Your task to perform on an android device: Go to calendar. Show me events next week Image 0: 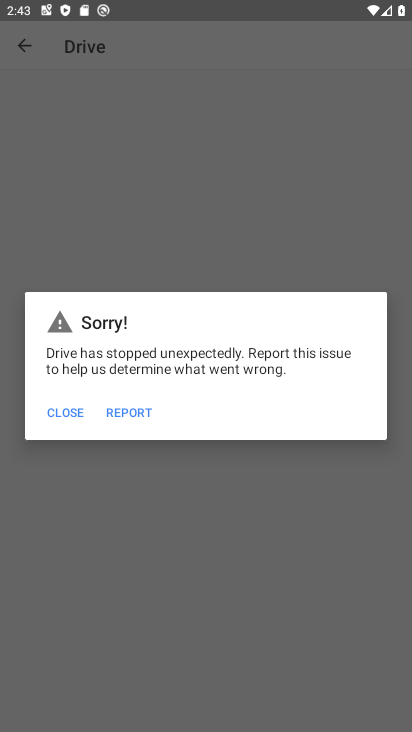
Step 0: press home button
Your task to perform on an android device: Go to calendar. Show me events next week Image 1: 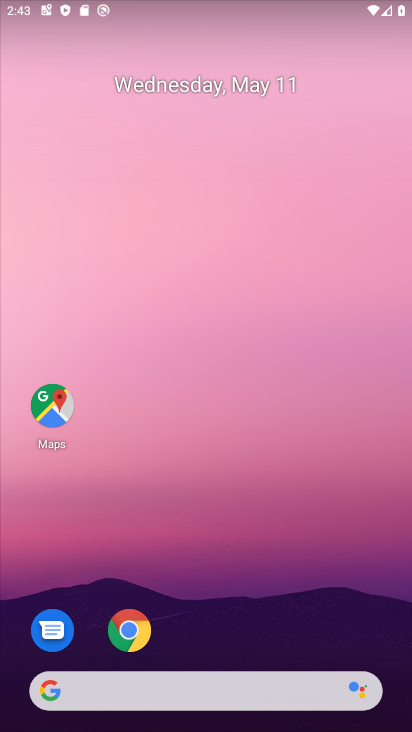
Step 1: drag from (320, 624) to (341, 47)
Your task to perform on an android device: Go to calendar. Show me events next week Image 2: 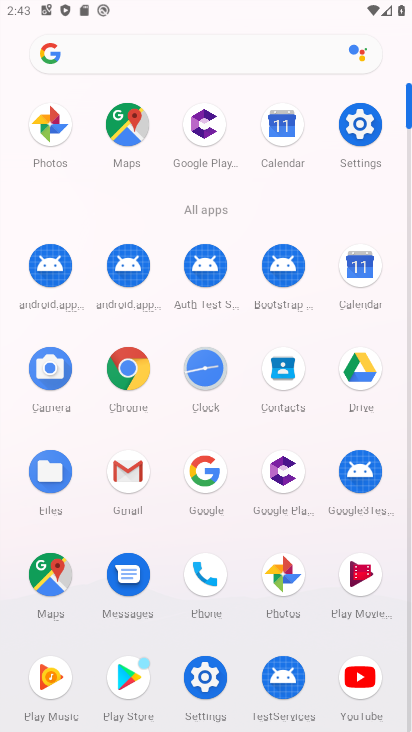
Step 2: click (289, 130)
Your task to perform on an android device: Go to calendar. Show me events next week Image 3: 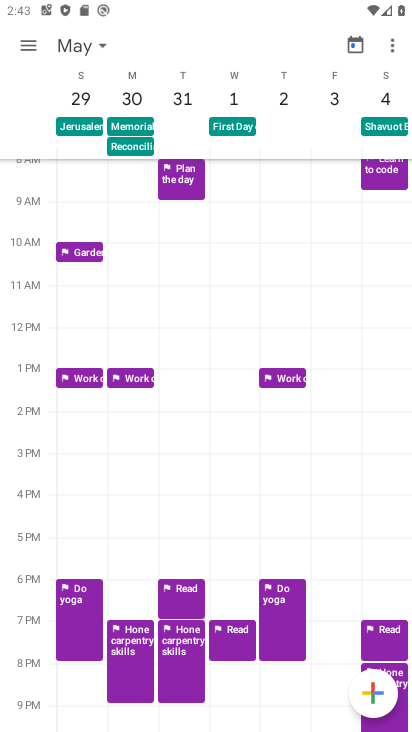
Step 3: click (107, 47)
Your task to perform on an android device: Go to calendar. Show me events next week Image 4: 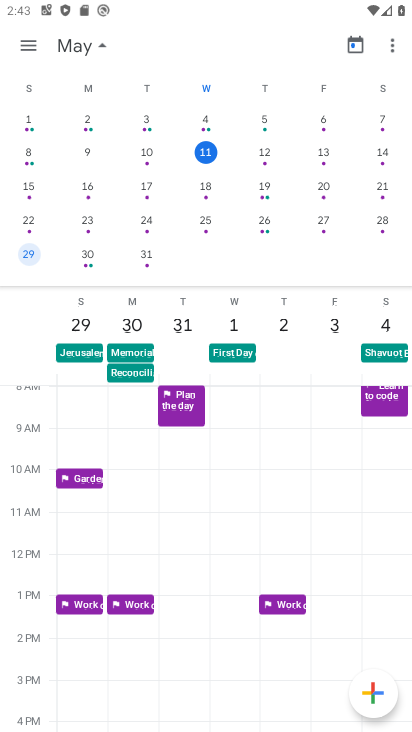
Step 4: click (219, 156)
Your task to perform on an android device: Go to calendar. Show me events next week Image 5: 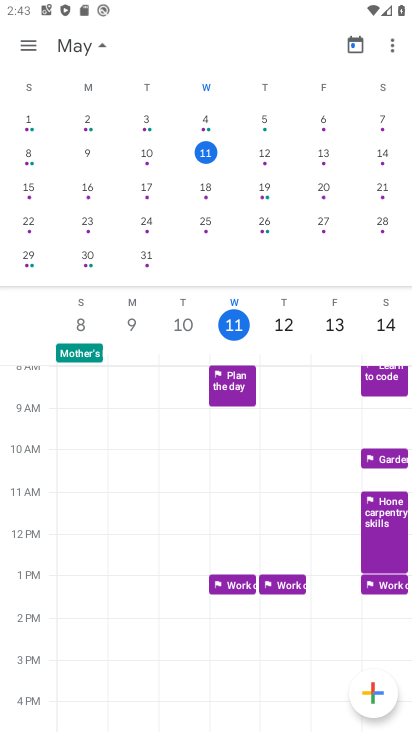
Step 5: drag from (289, 473) to (29, 499)
Your task to perform on an android device: Go to calendar. Show me events next week Image 6: 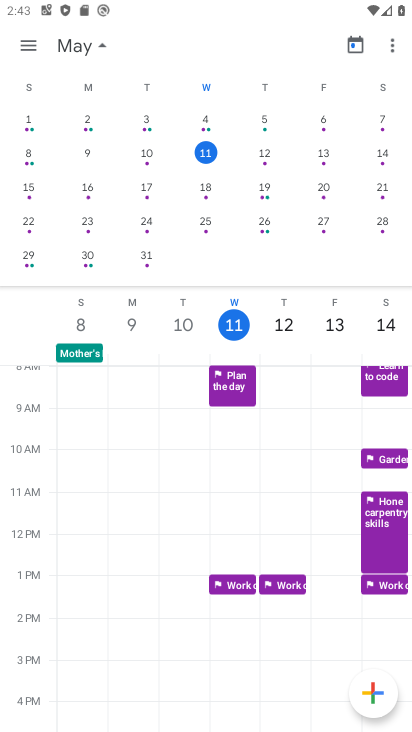
Step 6: drag from (215, 484) to (243, 0)
Your task to perform on an android device: Go to calendar. Show me events next week Image 7: 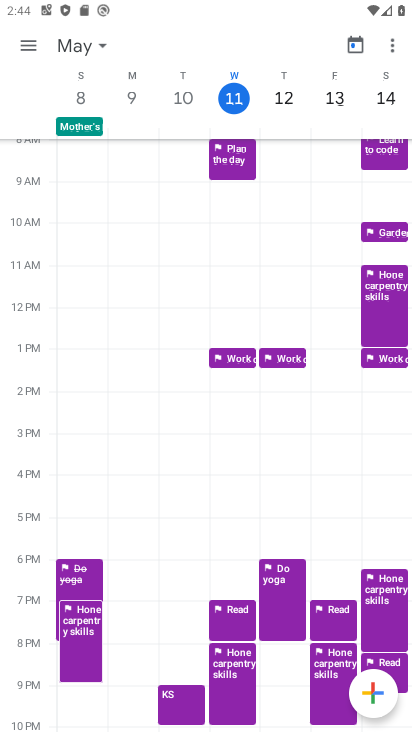
Step 7: drag from (268, 430) to (3, 89)
Your task to perform on an android device: Go to calendar. Show me events next week Image 8: 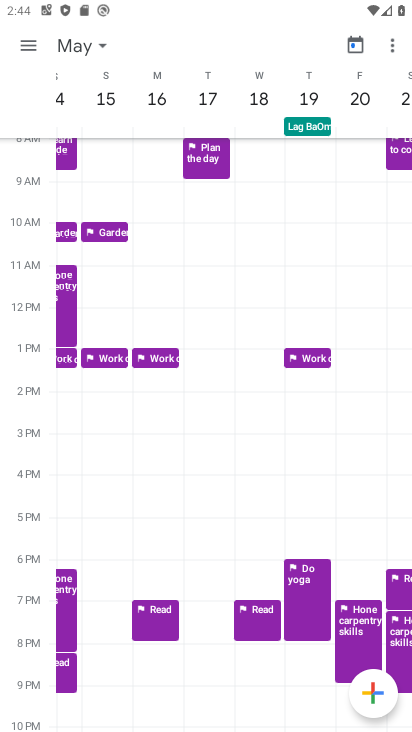
Step 8: click (35, 45)
Your task to perform on an android device: Go to calendar. Show me events next week Image 9: 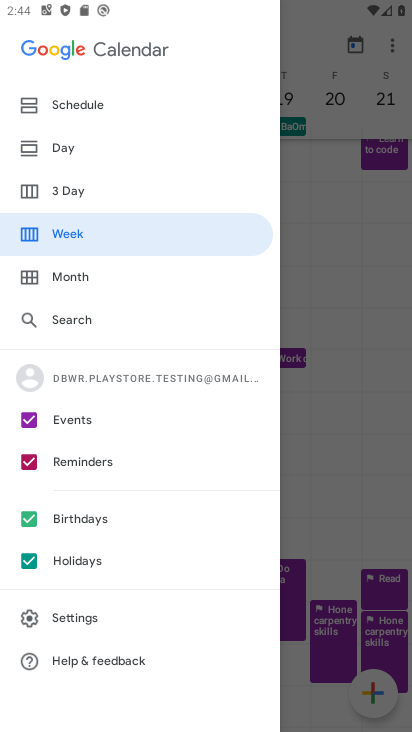
Step 9: click (33, 465)
Your task to perform on an android device: Go to calendar. Show me events next week Image 10: 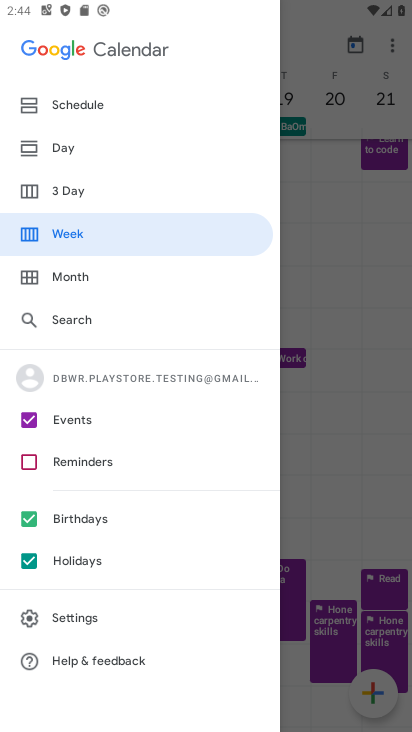
Step 10: click (23, 523)
Your task to perform on an android device: Go to calendar. Show me events next week Image 11: 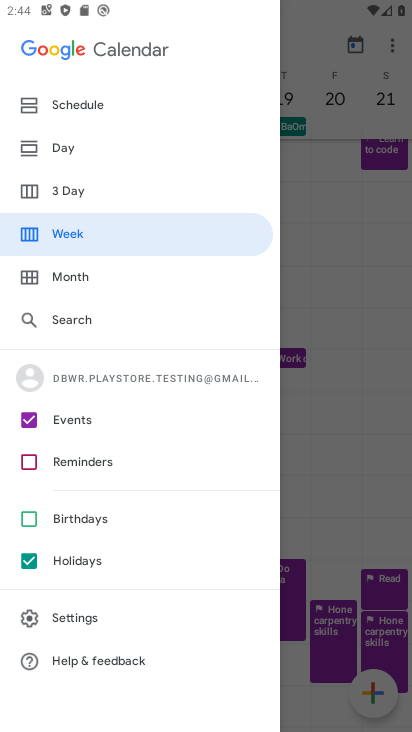
Step 11: click (30, 564)
Your task to perform on an android device: Go to calendar. Show me events next week Image 12: 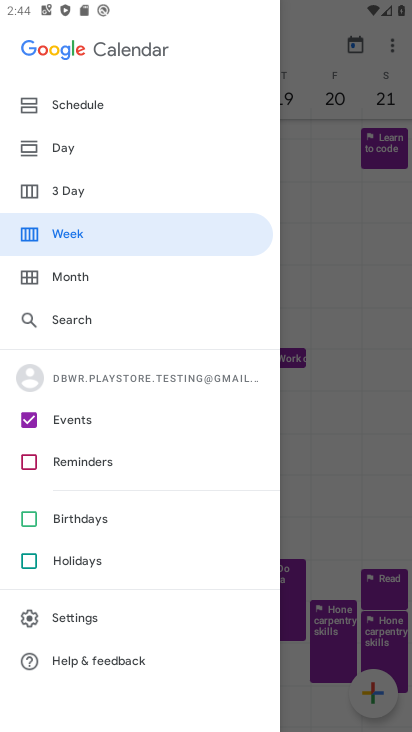
Step 12: click (30, 108)
Your task to perform on an android device: Go to calendar. Show me events next week Image 13: 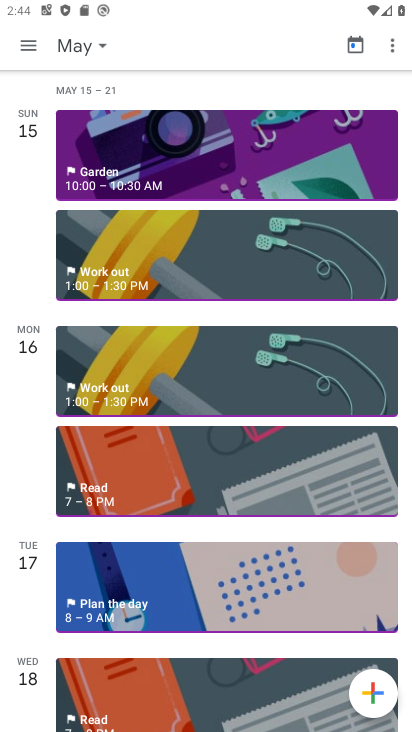
Step 13: click (28, 46)
Your task to perform on an android device: Go to calendar. Show me events next week Image 14: 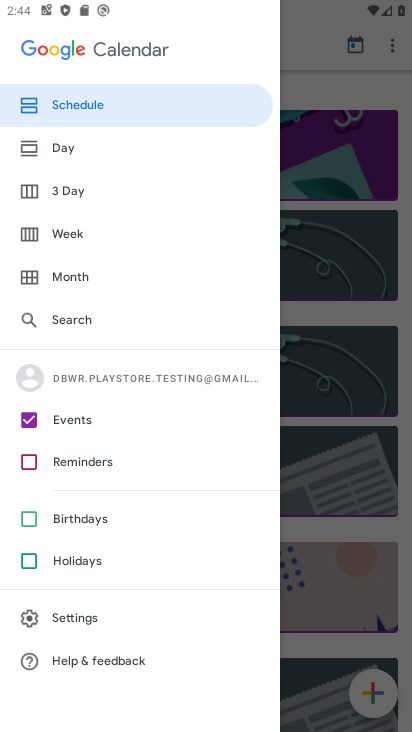
Step 14: click (57, 235)
Your task to perform on an android device: Go to calendar. Show me events next week Image 15: 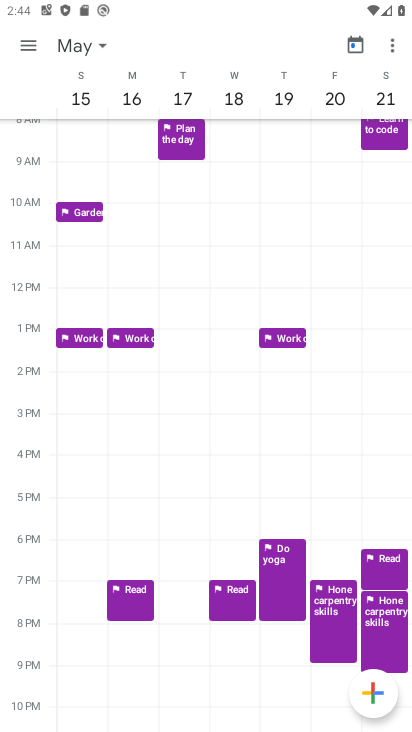
Step 15: task complete